Your task to perform on an android device: Go to settings Image 0: 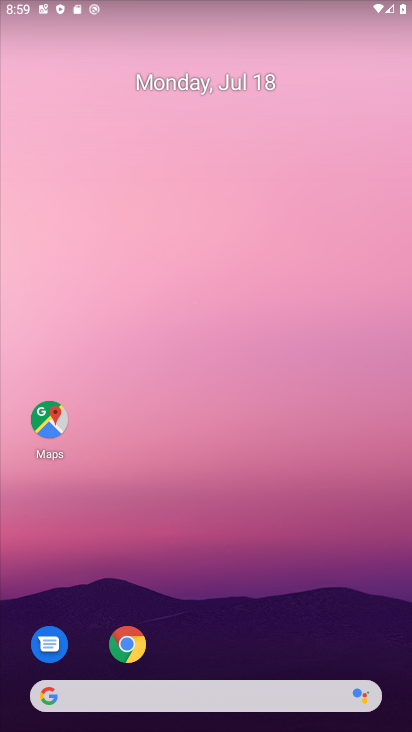
Step 0: drag from (244, 625) to (209, 3)
Your task to perform on an android device: Go to settings Image 1: 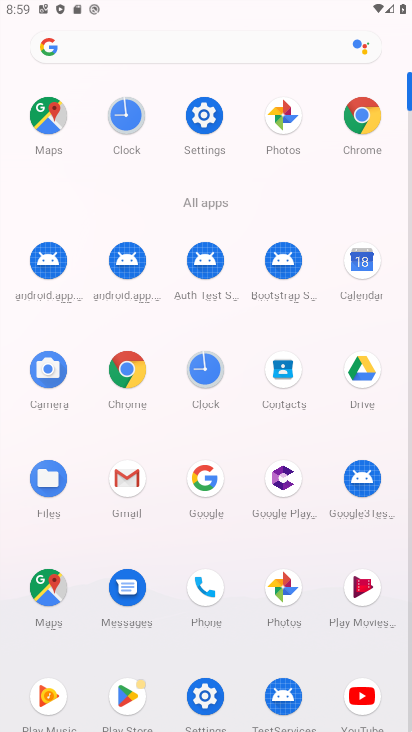
Step 1: click (205, 148)
Your task to perform on an android device: Go to settings Image 2: 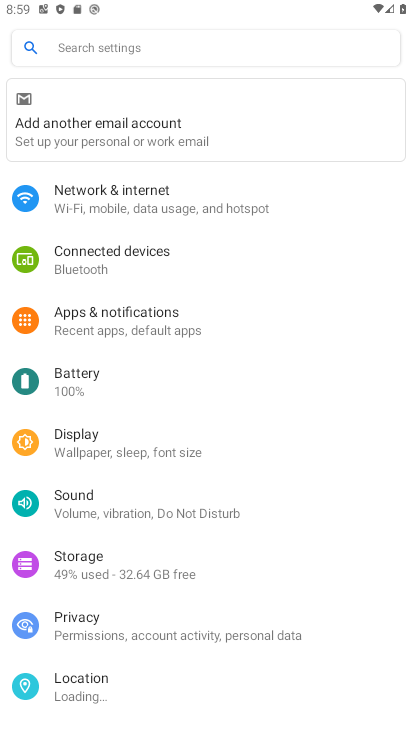
Step 2: task complete